Your task to perform on an android device: Search for Mexican restaurants on Maps Image 0: 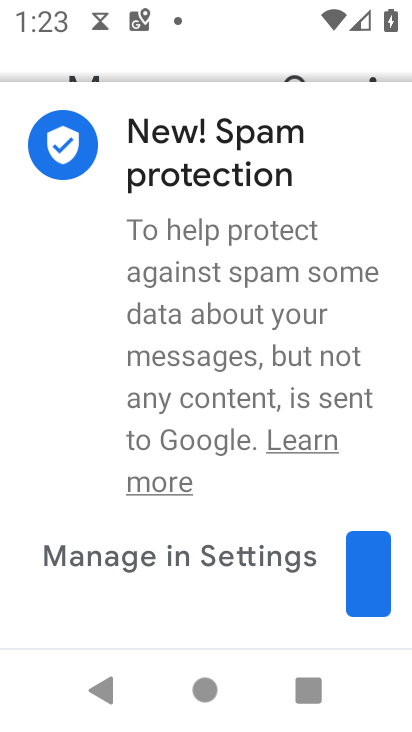
Step 0: press home button
Your task to perform on an android device: Search for Mexican restaurants on Maps Image 1: 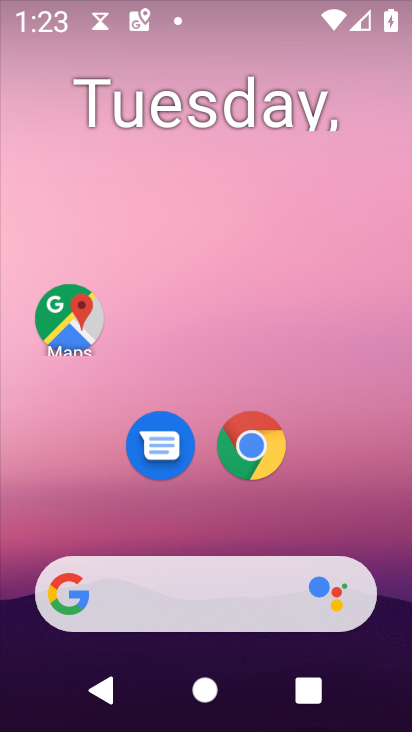
Step 1: drag from (314, 586) to (280, 0)
Your task to perform on an android device: Search for Mexican restaurants on Maps Image 2: 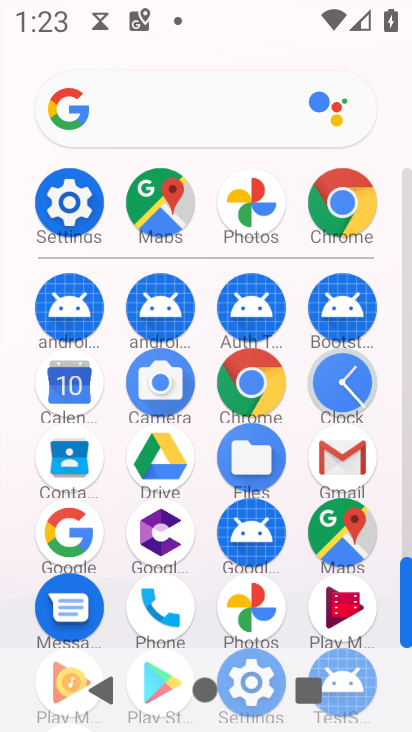
Step 2: click (353, 515)
Your task to perform on an android device: Search for Mexican restaurants on Maps Image 3: 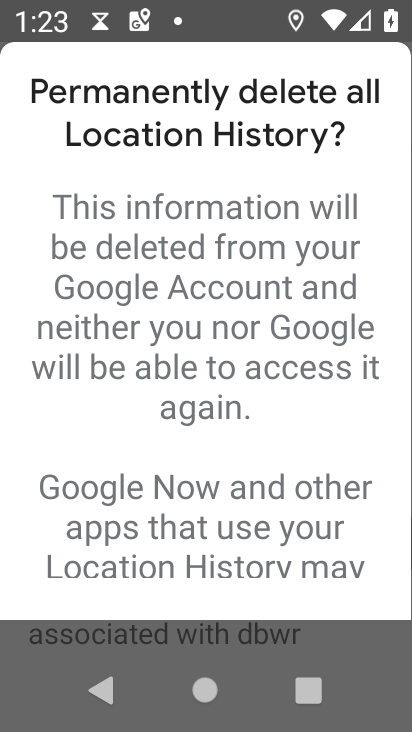
Step 3: press back button
Your task to perform on an android device: Search for Mexican restaurants on Maps Image 4: 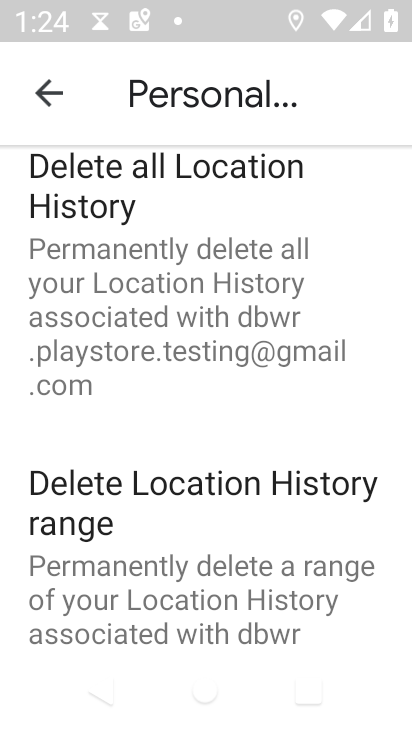
Step 4: press back button
Your task to perform on an android device: Search for Mexican restaurants on Maps Image 5: 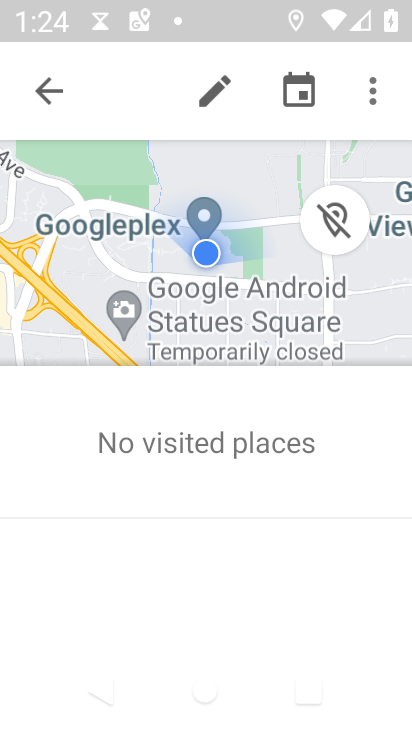
Step 5: press back button
Your task to perform on an android device: Search for Mexican restaurants on Maps Image 6: 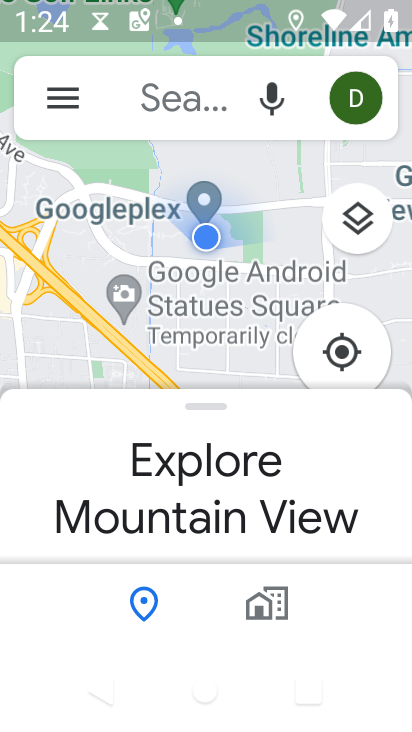
Step 6: click (211, 100)
Your task to perform on an android device: Search for Mexican restaurants on Maps Image 7: 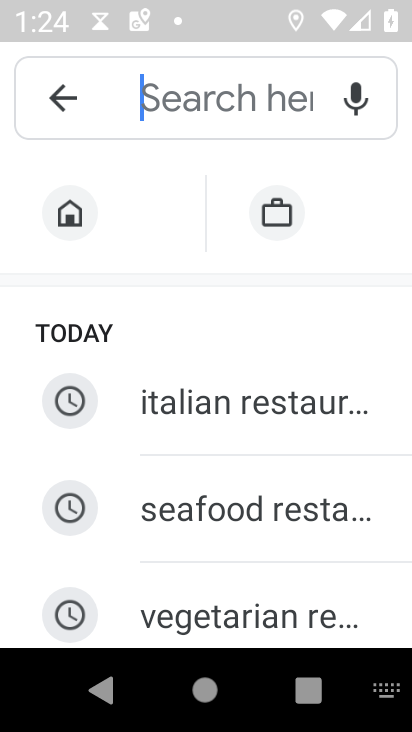
Step 7: type "mexican restaurant"
Your task to perform on an android device: Search for Mexican restaurants on Maps Image 8: 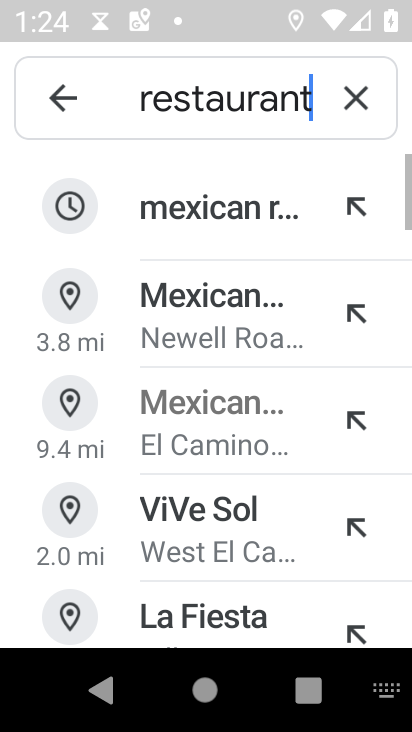
Step 8: click (282, 229)
Your task to perform on an android device: Search for Mexican restaurants on Maps Image 9: 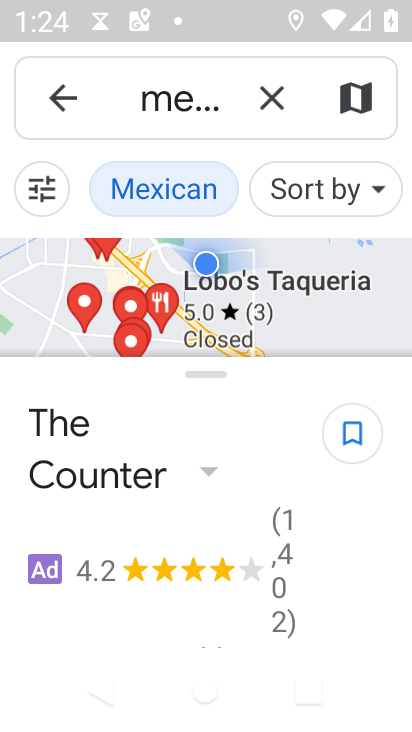
Step 9: task complete